Your task to perform on an android device: Is it going to rain this weekend? Image 0: 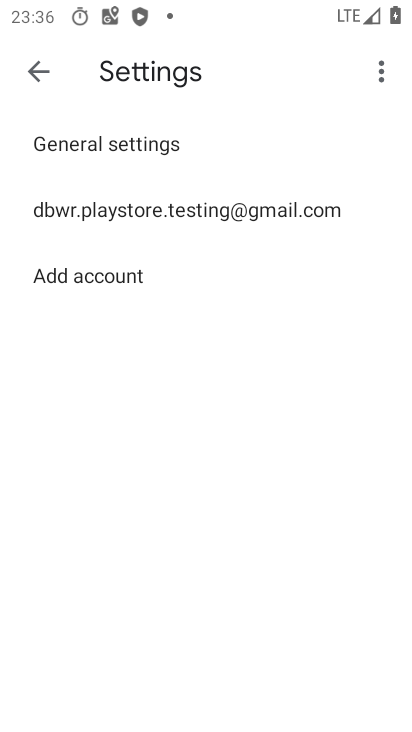
Step 0: press home button
Your task to perform on an android device: Is it going to rain this weekend? Image 1: 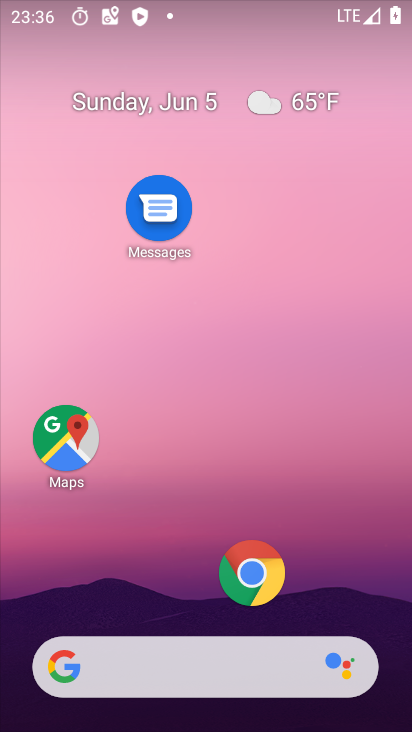
Step 1: click (290, 107)
Your task to perform on an android device: Is it going to rain this weekend? Image 2: 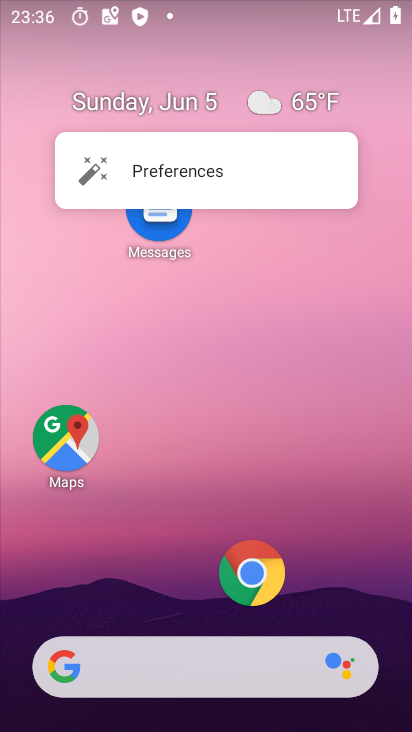
Step 2: click (284, 106)
Your task to perform on an android device: Is it going to rain this weekend? Image 3: 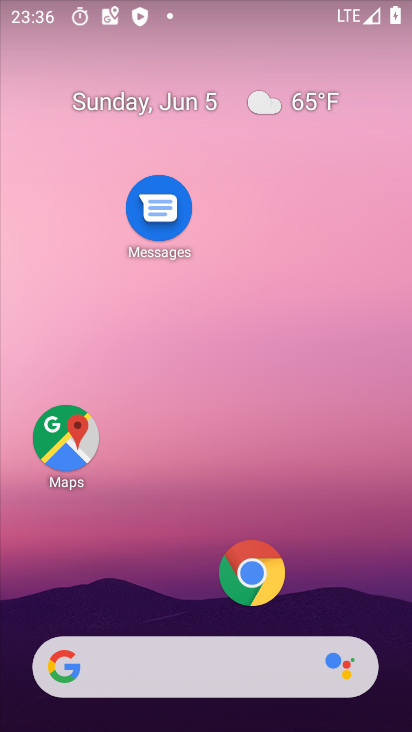
Step 3: click (282, 106)
Your task to perform on an android device: Is it going to rain this weekend? Image 4: 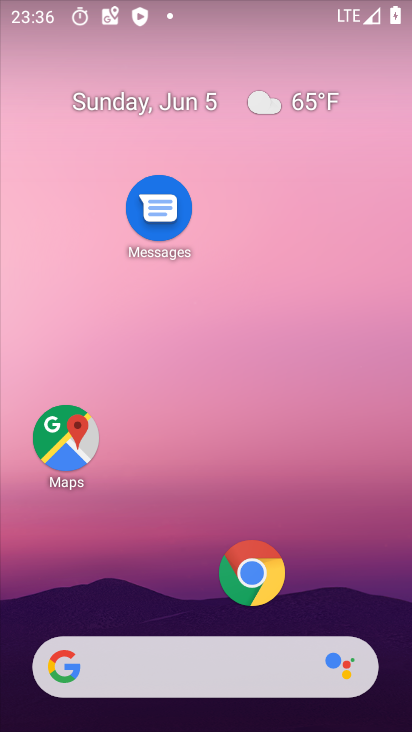
Step 4: click (329, 106)
Your task to perform on an android device: Is it going to rain this weekend? Image 5: 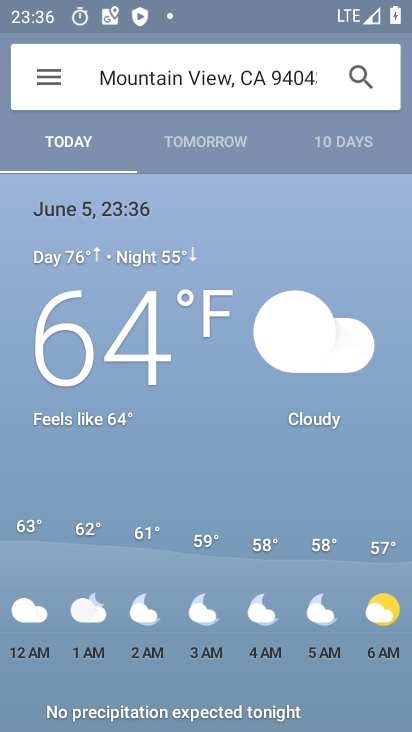
Step 5: click (354, 140)
Your task to perform on an android device: Is it going to rain this weekend? Image 6: 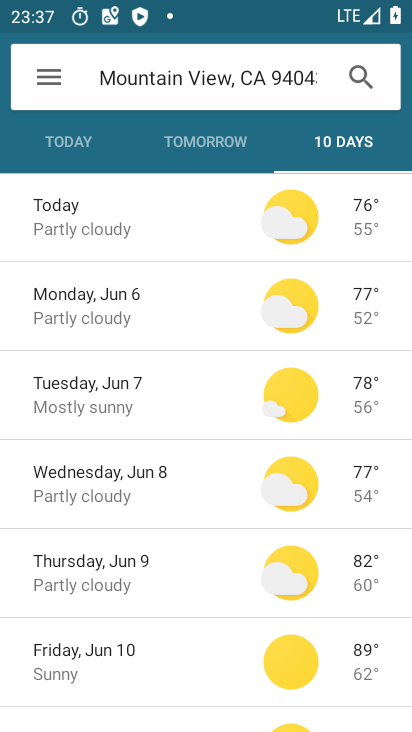
Step 6: task complete